Your task to perform on an android device: turn off notifications in google photos Image 0: 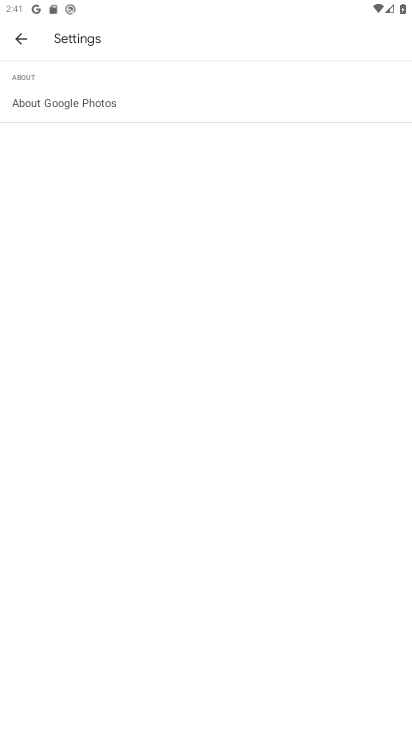
Step 0: press home button
Your task to perform on an android device: turn off notifications in google photos Image 1: 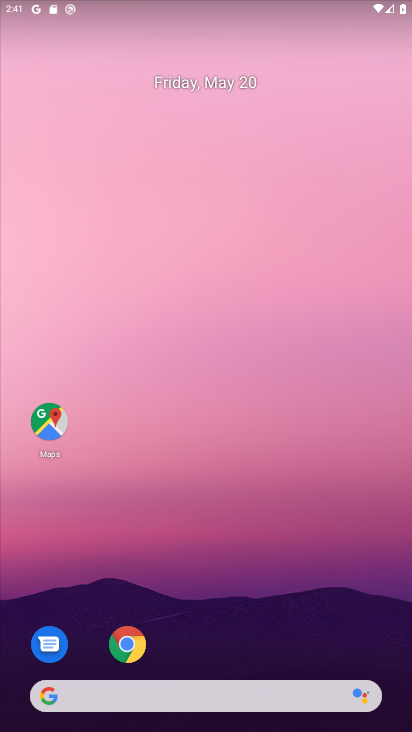
Step 1: drag from (220, 653) to (267, 189)
Your task to perform on an android device: turn off notifications in google photos Image 2: 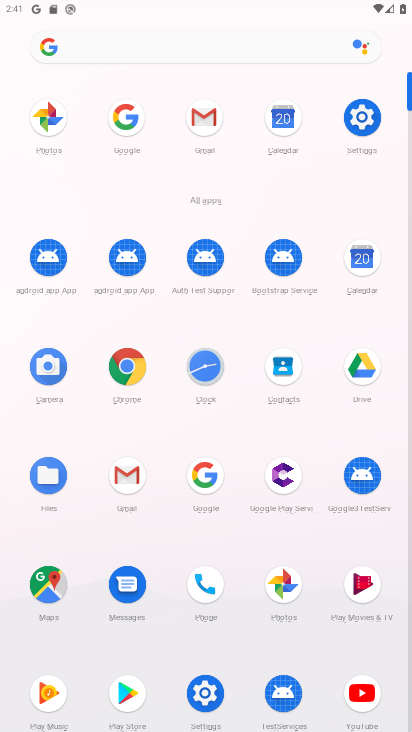
Step 2: click (48, 124)
Your task to perform on an android device: turn off notifications in google photos Image 3: 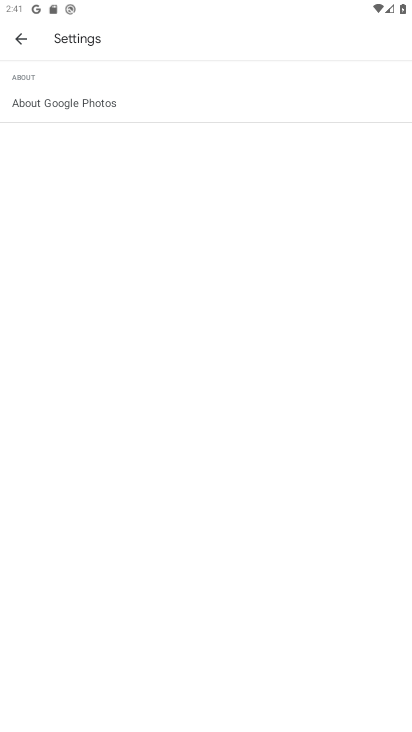
Step 3: press back button
Your task to perform on an android device: turn off notifications in google photos Image 4: 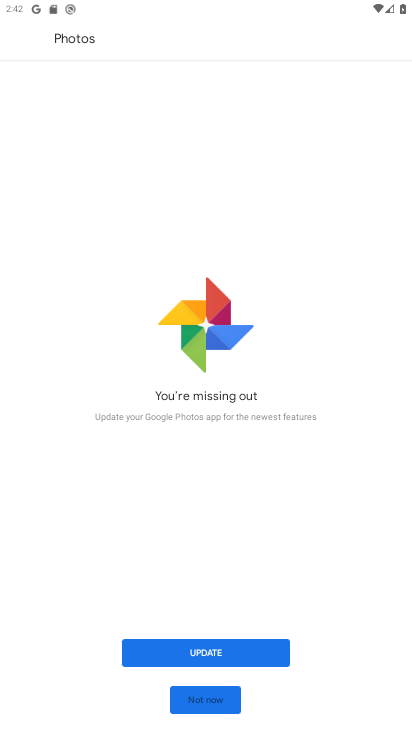
Step 4: click (228, 651)
Your task to perform on an android device: turn off notifications in google photos Image 5: 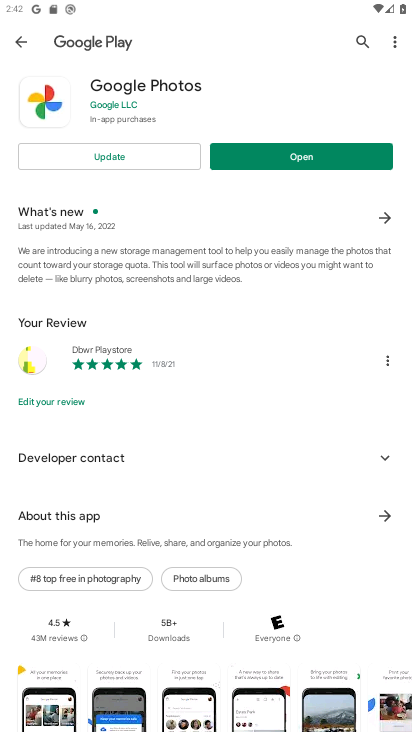
Step 5: click (289, 153)
Your task to perform on an android device: turn off notifications in google photos Image 6: 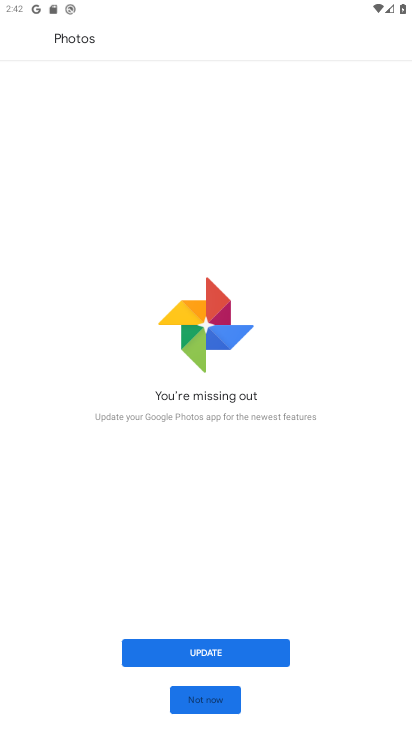
Step 6: click (239, 654)
Your task to perform on an android device: turn off notifications in google photos Image 7: 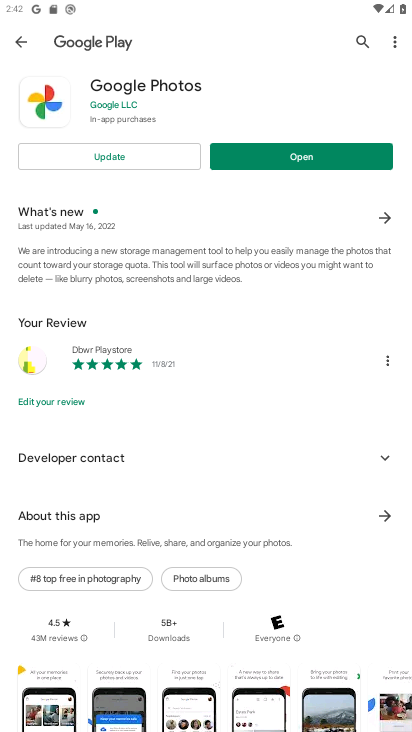
Step 7: click (156, 149)
Your task to perform on an android device: turn off notifications in google photos Image 8: 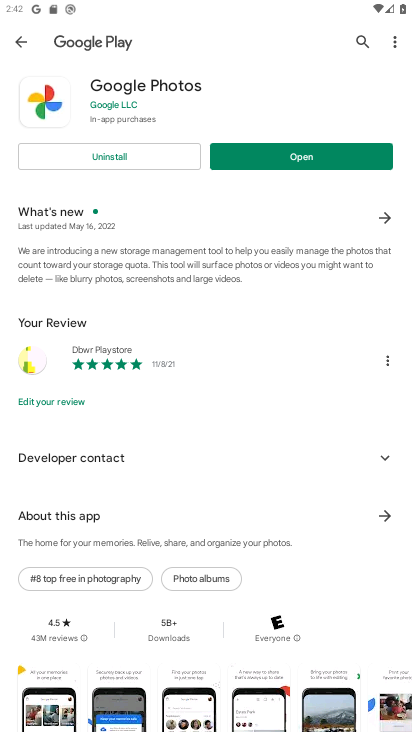
Step 8: click (315, 164)
Your task to perform on an android device: turn off notifications in google photos Image 9: 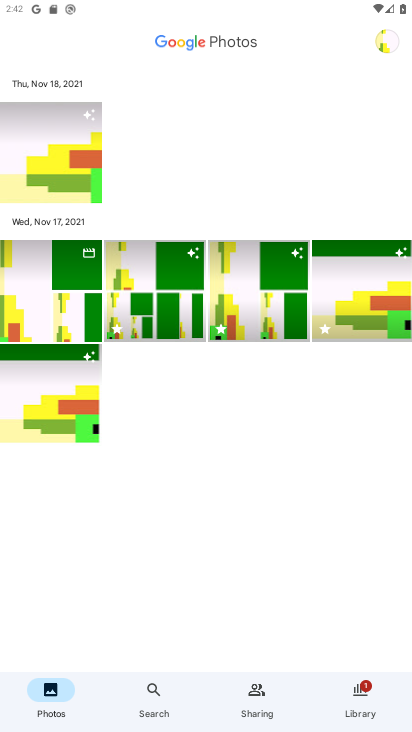
Step 9: click (389, 43)
Your task to perform on an android device: turn off notifications in google photos Image 10: 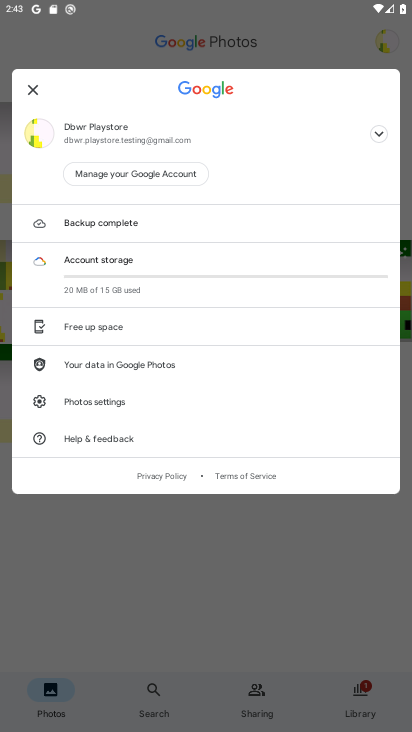
Step 10: click (105, 406)
Your task to perform on an android device: turn off notifications in google photos Image 11: 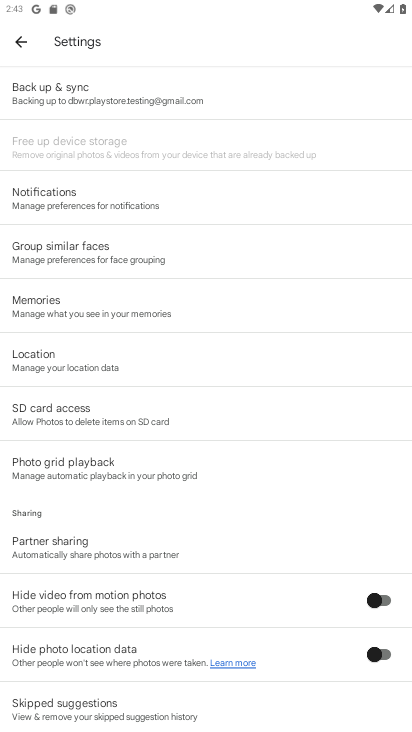
Step 11: click (163, 206)
Your task to perform on an android device: turn off notifications in google photos Image 12: 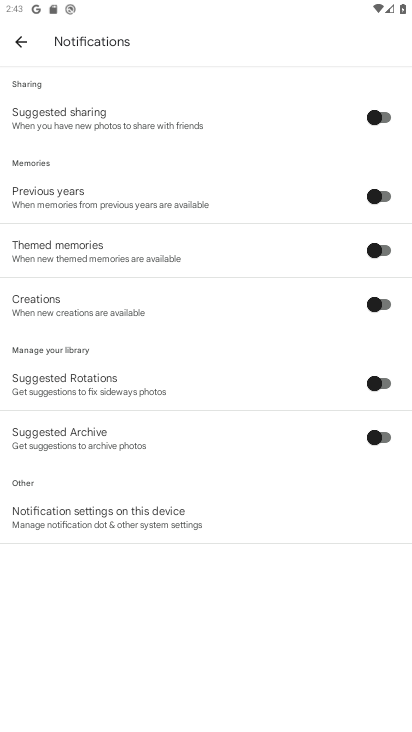
Step 12: click (159, 528)
Your task to perform on an android device: turn off notifications in google photos Image 13: 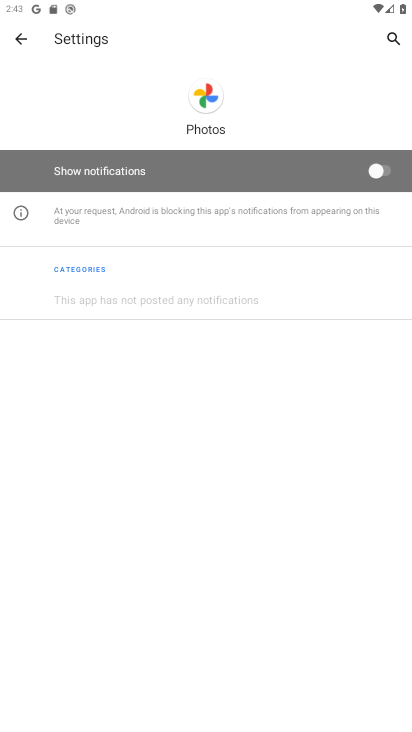
Step 13: task complete